Your task to perform on an android device: toggle notification dots Image 0: 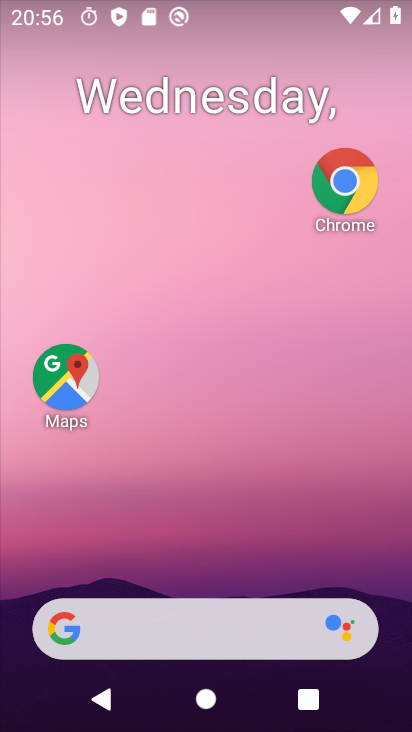
Step 0: drag from (246, 660) to (411, 282)
Your task to perform on an android device: toggle notification dots Image 1: 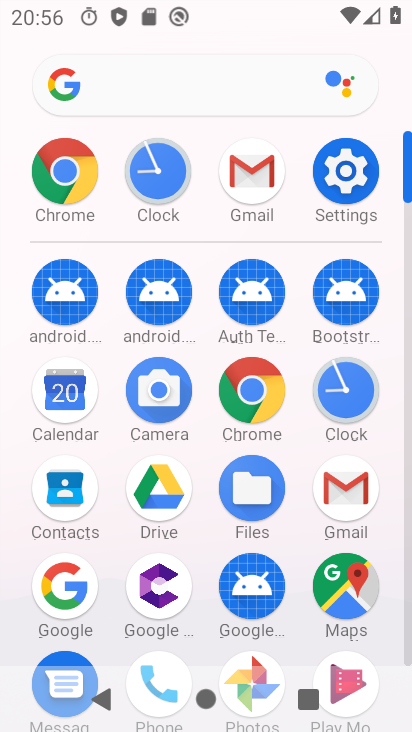
Step 1: click (346, 179)
Your task to perform on an android device: toggle notification dots Image 2: 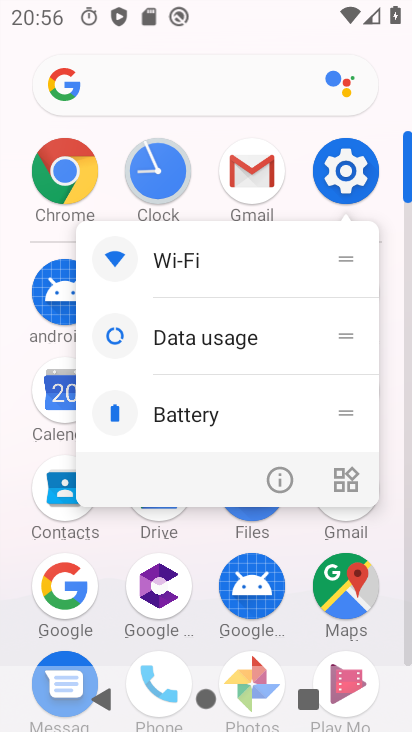
Step 2: click (346, 179)
Your task to perform on an android device: toggle notification dots Image 3: 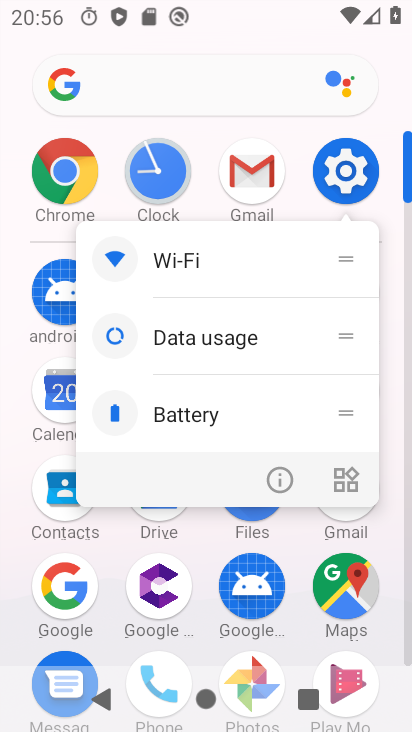
Step 3: click (341, 173)
Your task to perform on an android device: toggle notification dots Image 4: 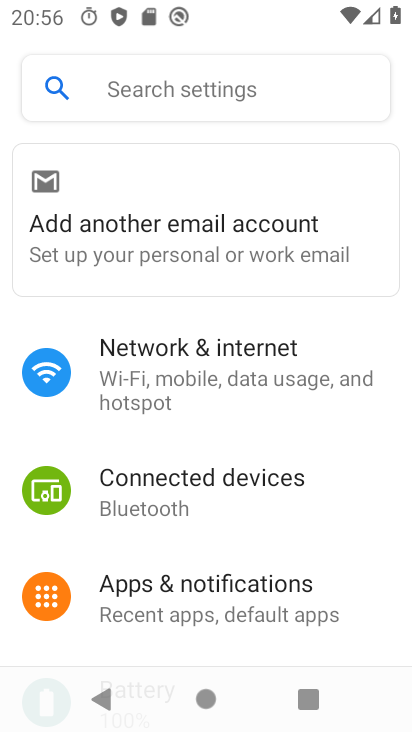
Step 4: click (166, 94)
Your task to perform on an android device: toggle notification dots Image 5: 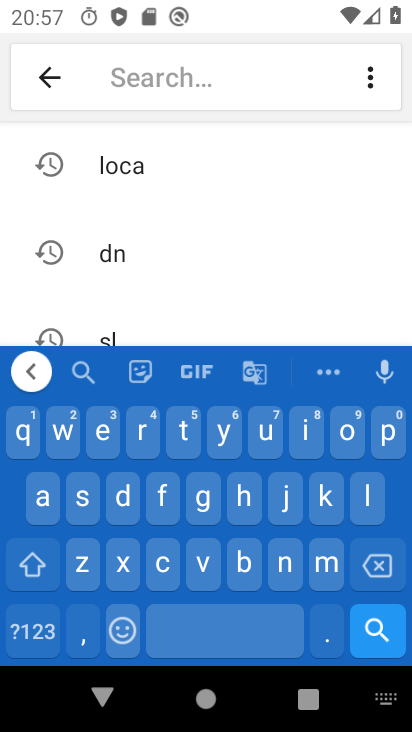
Step 5: click (119, 500)
Your task to perform on an android device: toggle notification dots Image 6: 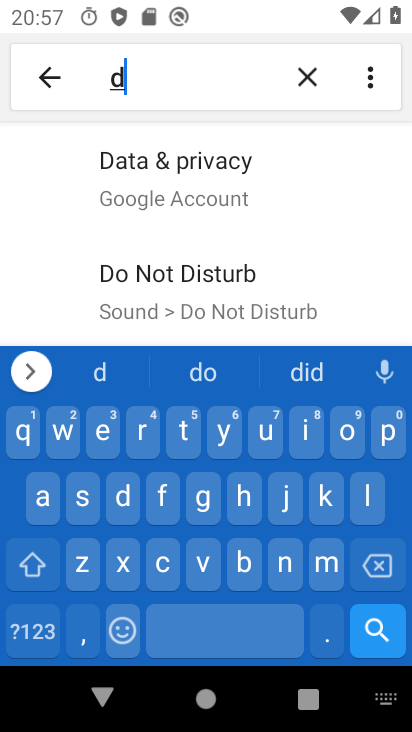
Step 6: click (341, 444)
Your task to perform on an android device: toggle notification dots Image 7: 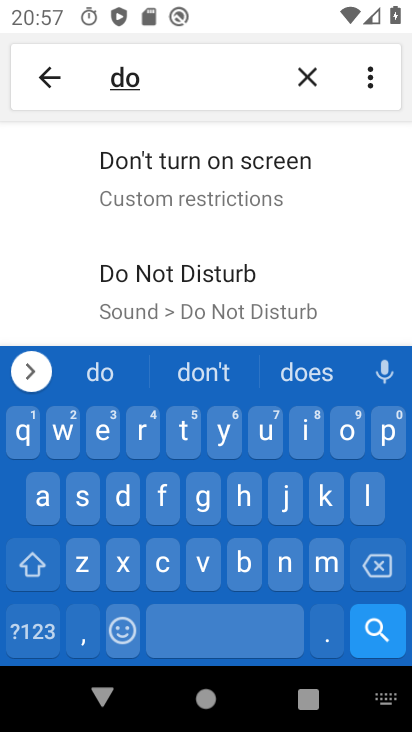
Step 7: click (184, 435)
Your task to perform on an android device: toggle notification dots Image 8: 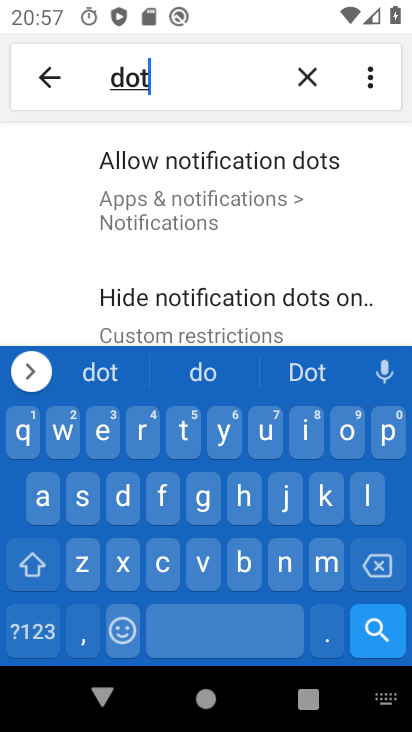
Step 8: click (198, 209)
Your task to perform on an android device: toggle notification dots Image 9: 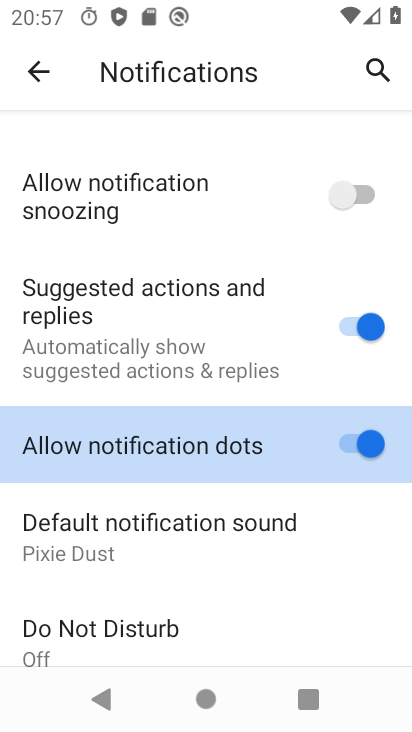
Step 9: task complete